Your task to perform on an android device: open a new tab in the chrome app Image 0: 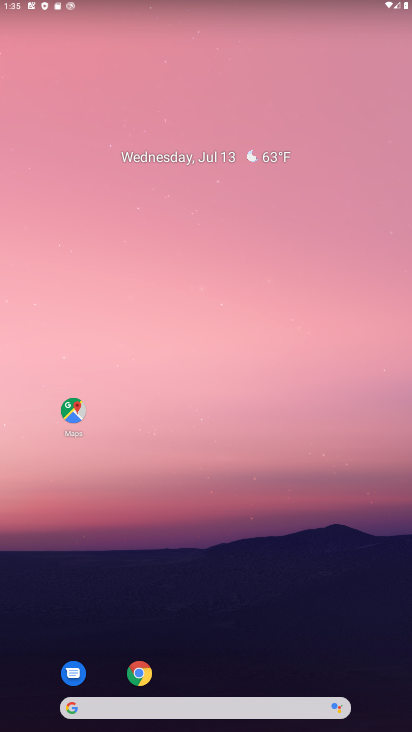
Step 0: drag from (224, 547) to (204, 254)
Your task to perform on an android device: open a new tab in the chrome app Image 1: 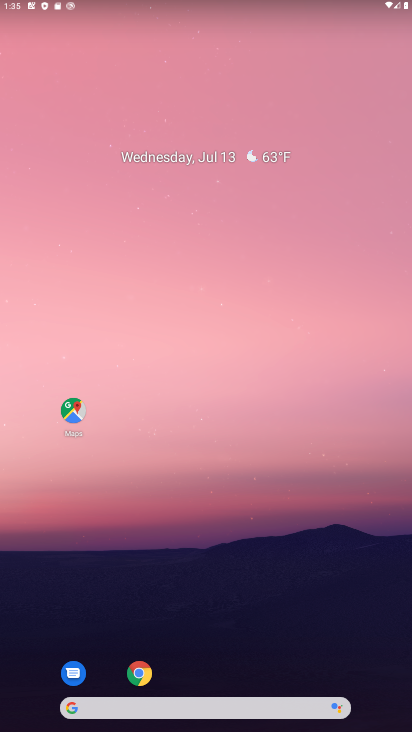
Step 1: drag from (279, 667) to (283, 259)
Your task to perform on an android device: open a new tab in the chrome app Image 2: 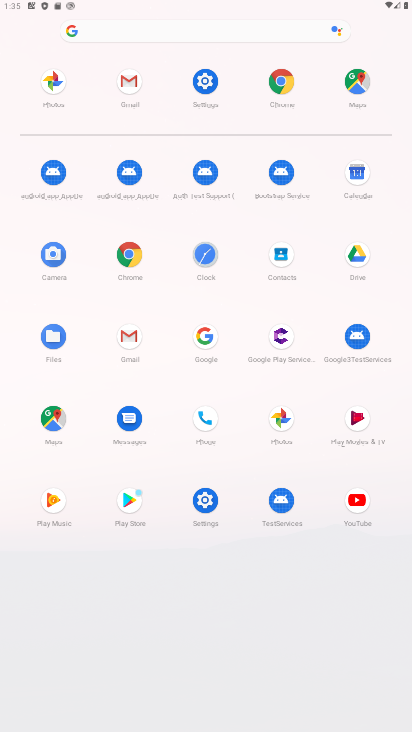
Step 2: click (132, 250)
Your task to perform on an android device: open a new tab in the chrome app Image 3: 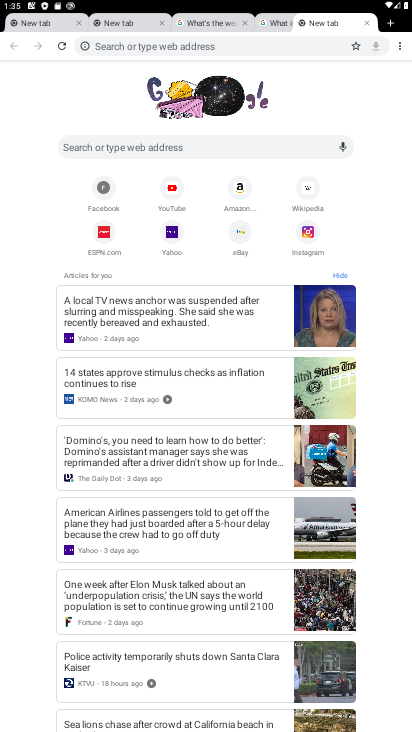
Step 3: task complete